Your task to perform on an android device: open a bookmark in the chrome app Image 0: 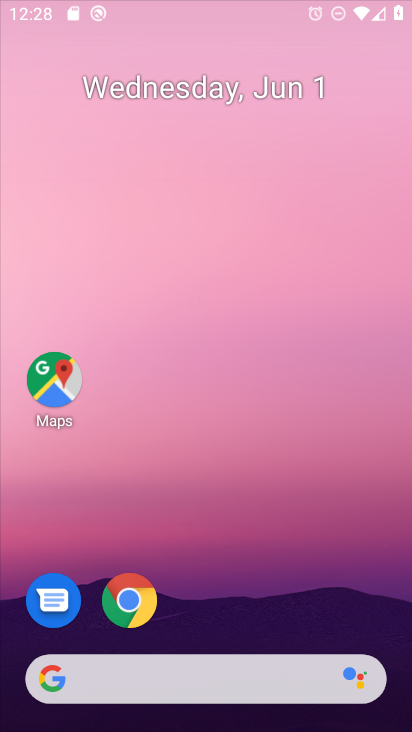
Step 0: press home button
Your task to perform on an android device: open a bookmark in the chrome app Image 1: 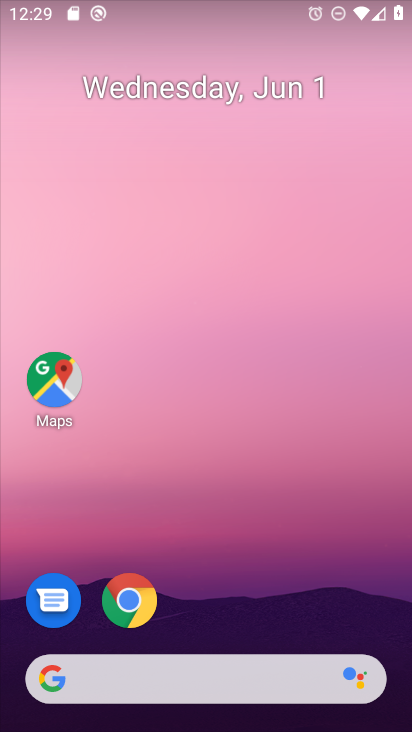
Step 1: click (127, 594)
Your task to perform on an android device: open a bookmark in the chrome app Image 2: 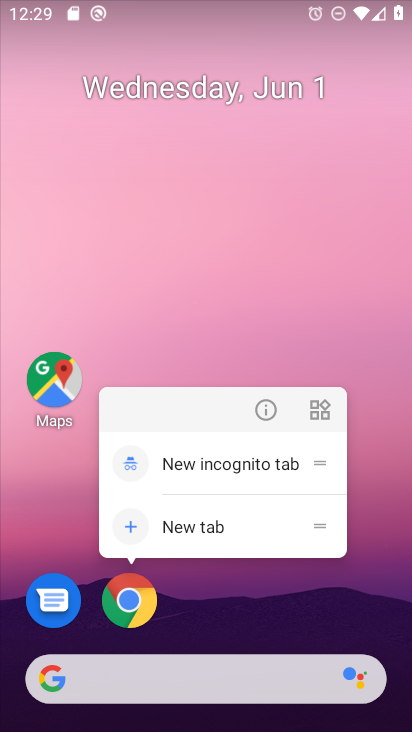
Step 2: click (130, 596)
Your task to perform on an android device: open a bookmark in the chrome app Image 3: 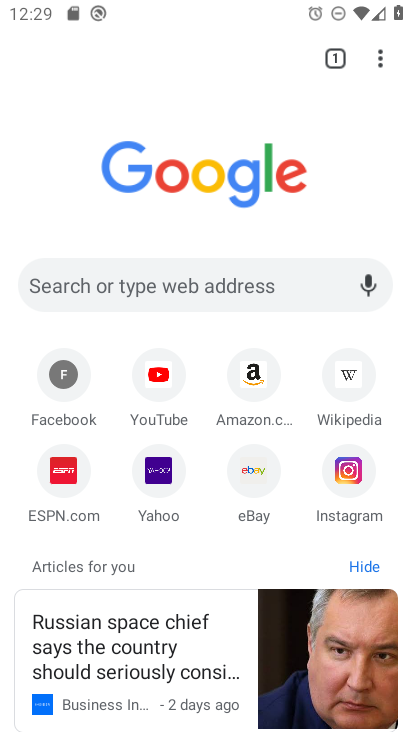
Step 3: click (375, 50)
Your task to perform on an android device: open a bookmark in the chrome app Image 4: 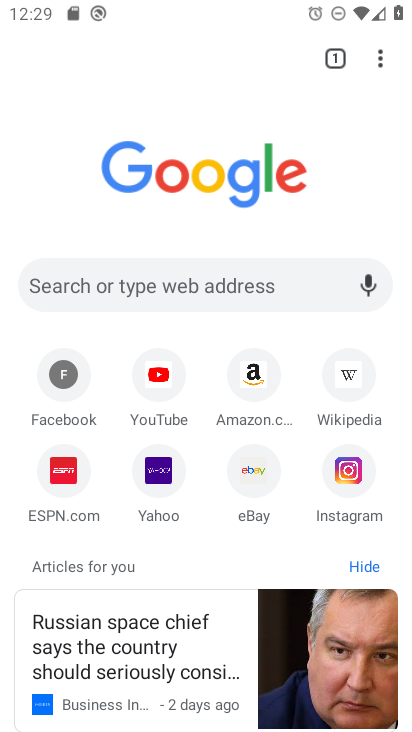
Step 4: click (384, 56)
Your task to perform on an android device: open a bookmark in the chrome app Image 5: 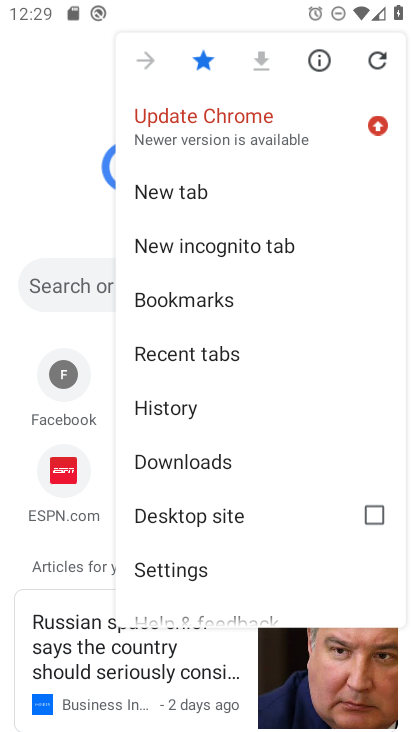
Step 5: click (246, 292)
Your task to perform on an android device: open a bookmark in the chrome app Image 6: 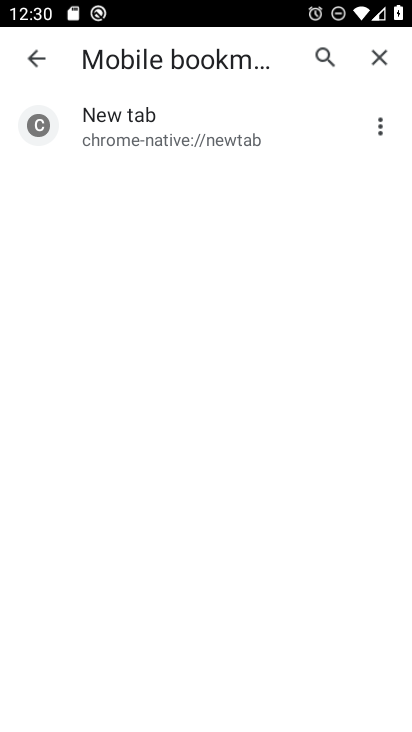
Step 6: click (185, 128)
Your task to perform on an android device: open a bookmark in the chrome app Image 7: 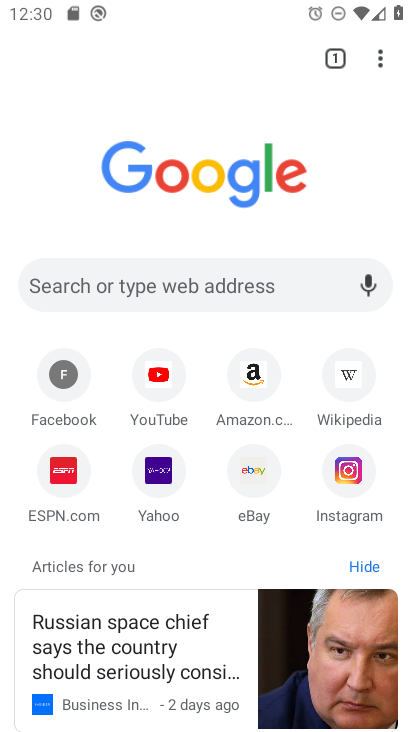
Step 7: task complete